Your task to perform on an android device: toggle show notifications on the lock screen Image 0: 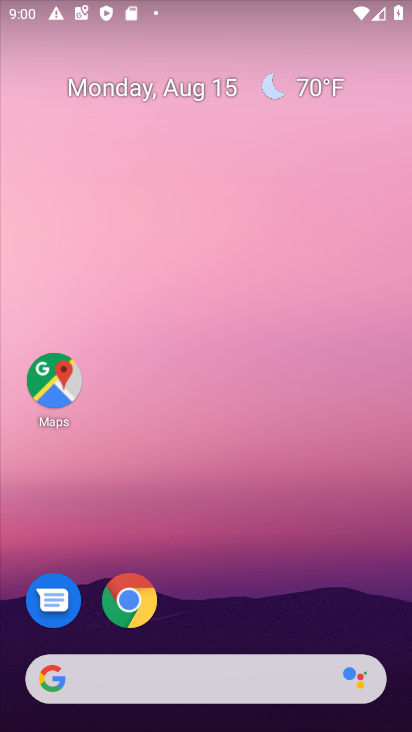
Step 0: drag from (230, 650) to (199, 90)
Your task to perform on an android device: toggle show notifications on the lock screen Image 1: 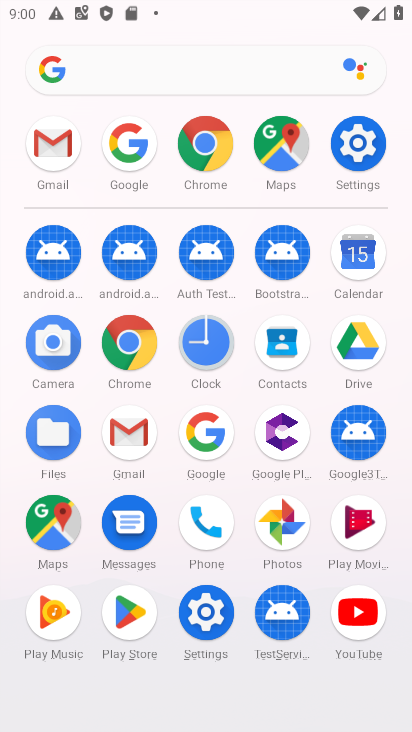
Step 1: click (358, 139)
Your task to perform on an android device: toggle show notifications on the lock screen Image 2: 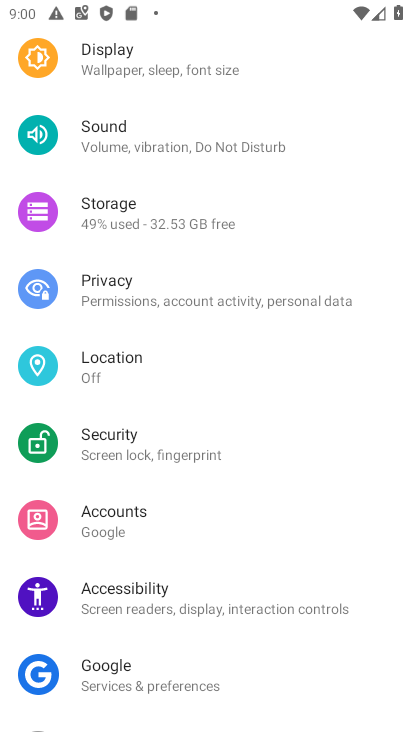
Step 2: drag from (135, 183) to (140, 652)
Your task to perform on an android device: toggle show notifications on the lock screen Image 3: 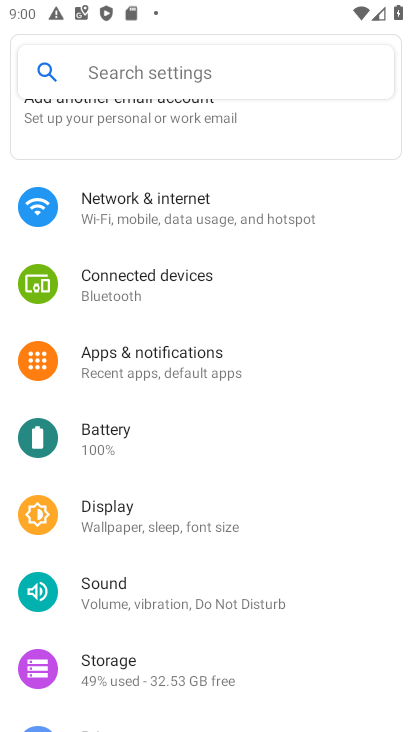
Step 3: click (131, 366)
Your task to perform on an android device: toggle show notifications on the lock screen Image 4: 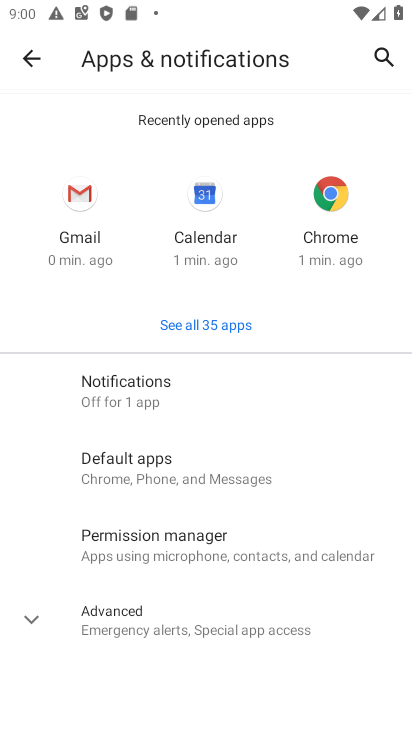
Step 4: click (125, 407)
Your task to perform on an android device: toggle show notifications on the lock screen Image 5: 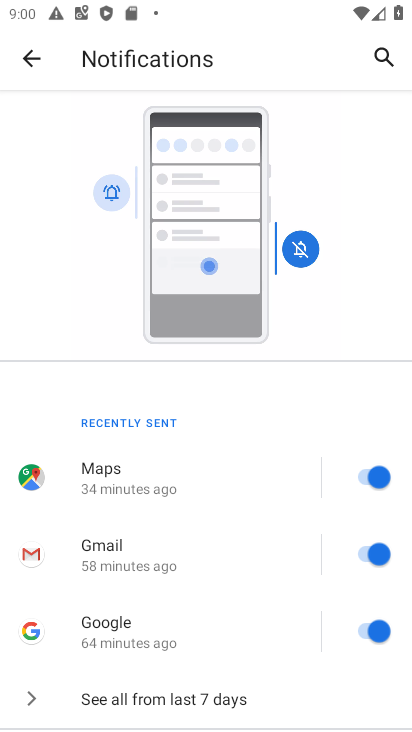
Step 5: drag from (156, 686) to (168, 187)
Your task to perform on an android device: toggle show notifications on the lock screen Image 6: 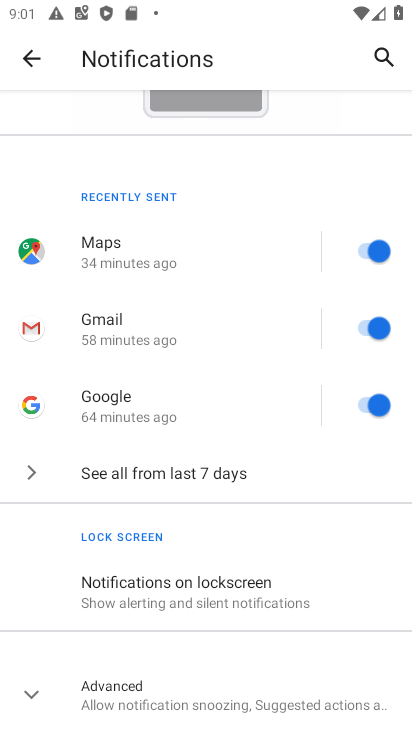
Step 6: click (161, 589)
Your task to perform on an android device: toggle show notifications on the lock screen Image 7: 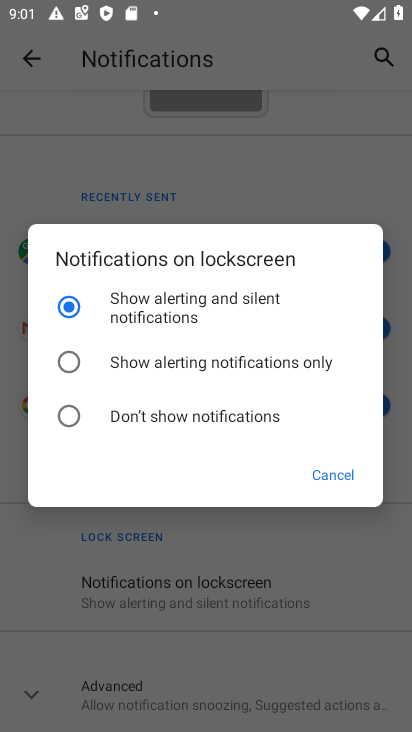
Step 7: click (60, 419)
Your task to perform on an android device: toggle show notifications on the lock screen Image 8: 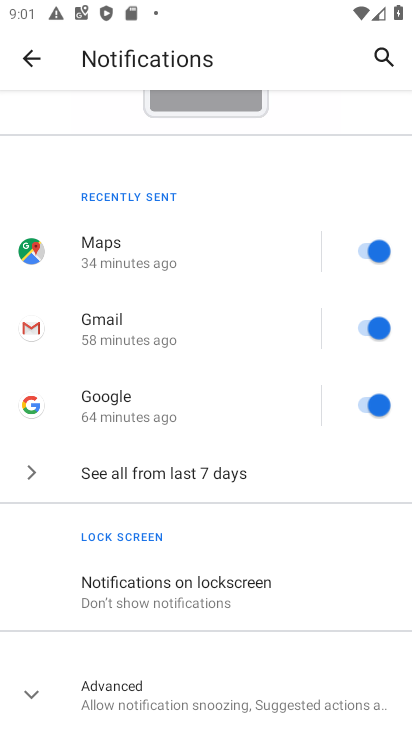
Step 8: task complete